Your task to perform on an android device: Search for vegetarian restaurants on Maps Image 0: 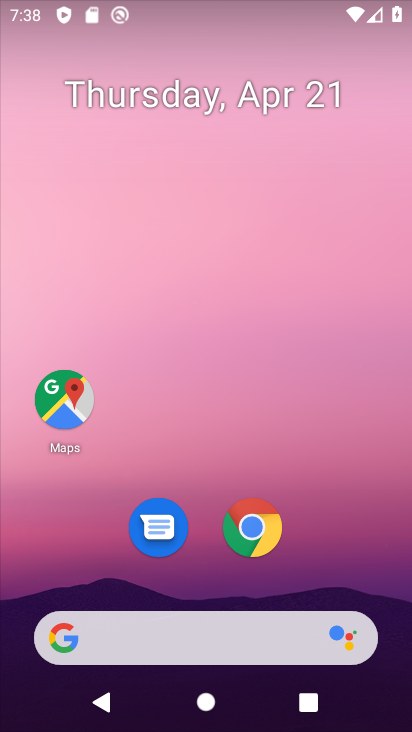
Step 0: click (334, 57)
Your task to perform on an android device: Search for vegetarian restaurants on Maps Image 1: 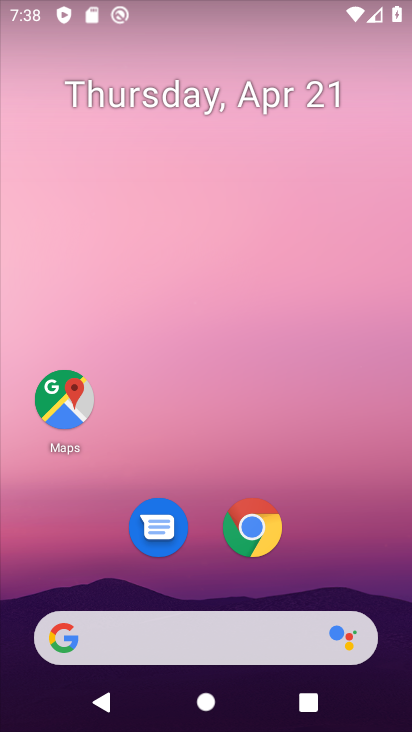
Step 1: click (202, 157)
Your task to perform on an android device: Search for vegetarian restaurants on Maps Image 2: 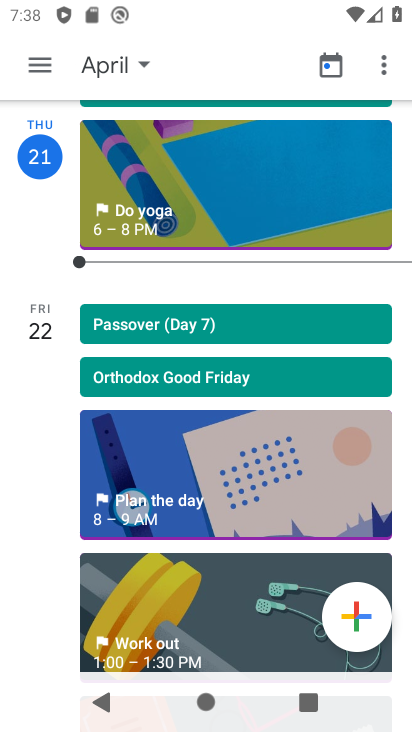
Step 2: press home button
Your task to perform on an android device: Search for vegetarian restaurants on Maps Image 3: 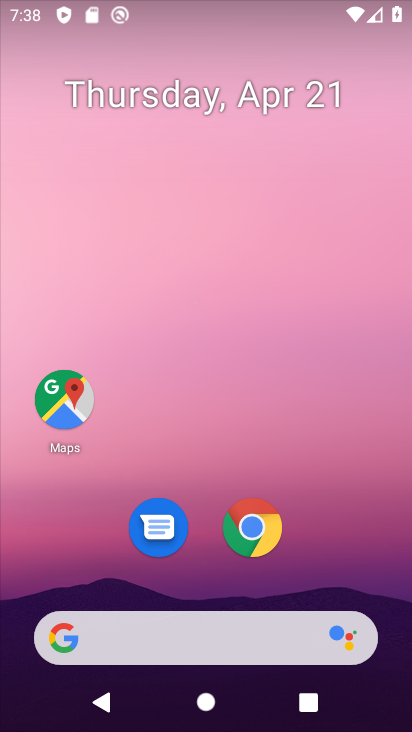
Step 3: drag from (271, 600) to (286, 31)
Your task to perform on an android device: Search for vegetarian restaurants on Maps Image 4: 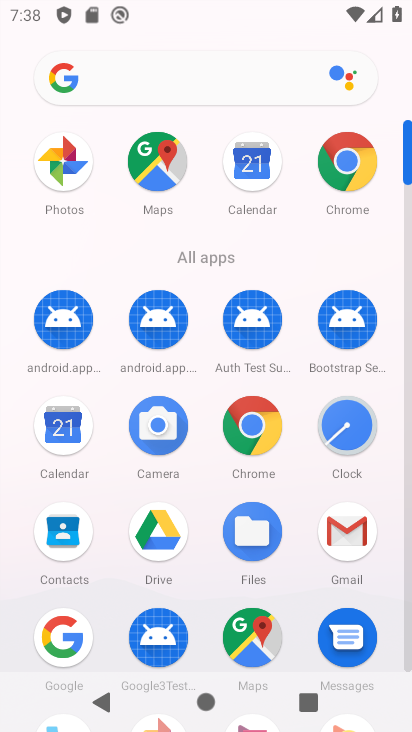
Step 4: click (262, 614)
Your task to perform on an android device: Search for vegetarian restaurants on Maps Image 5: 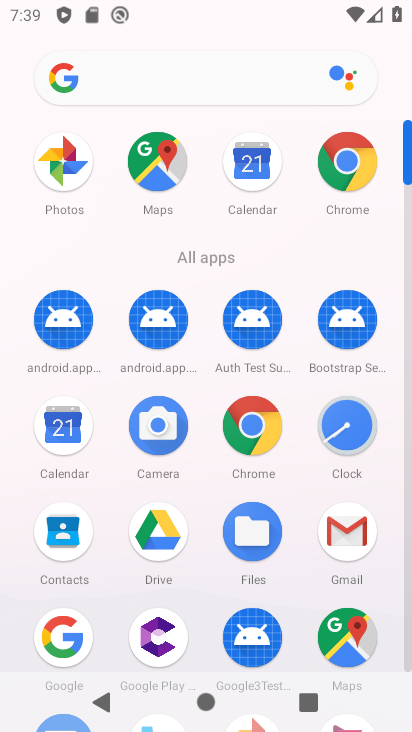
Step 5: click (336, 655)
Your task to perform on an android device: Search for vegetarian restaurants on Maps Image 6: 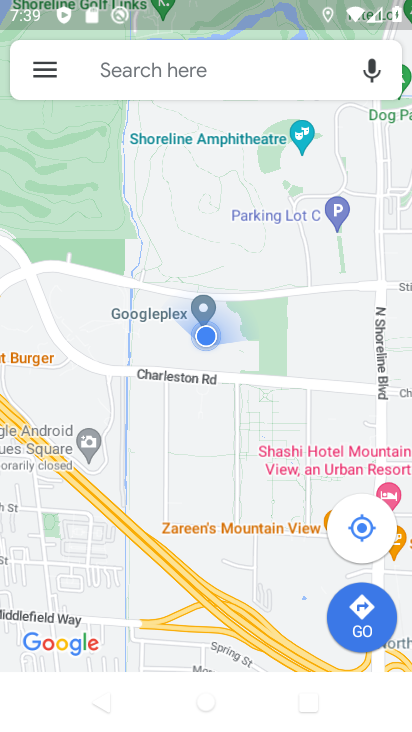
Step 6: click (216, 83)
Your task to perform on an android device: Search for vegetarian restaurants on Maps Image 7: 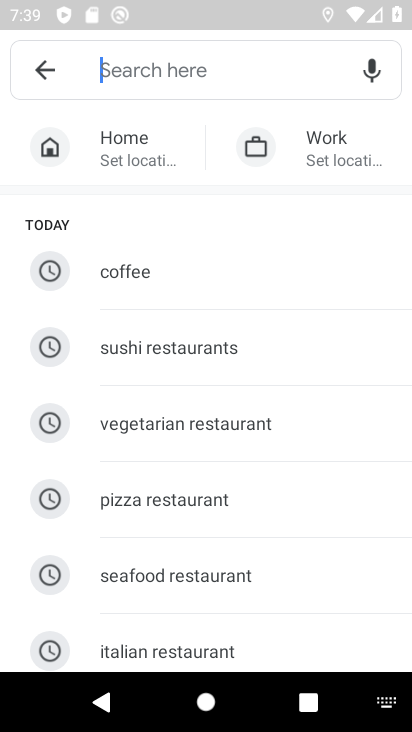
Step 7: click (293, 434)
Your task to perform on an android device: Search for vegetarian restaurants on Maps Image 8: 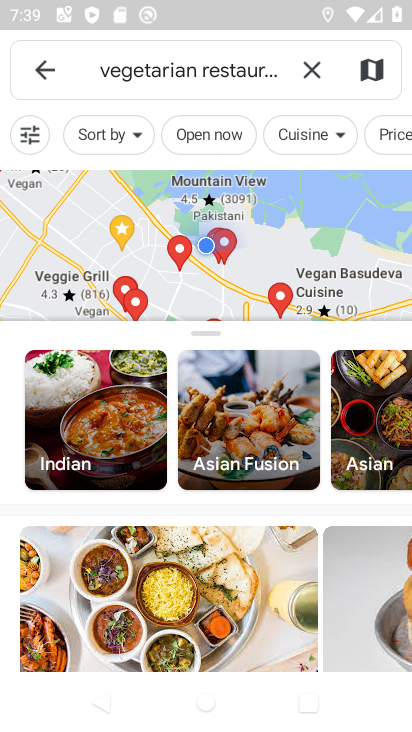
Step 8: task complete